Your task to perform on an android device: Add logitech g pro to the cart on costco, then select checkout. Image 0: 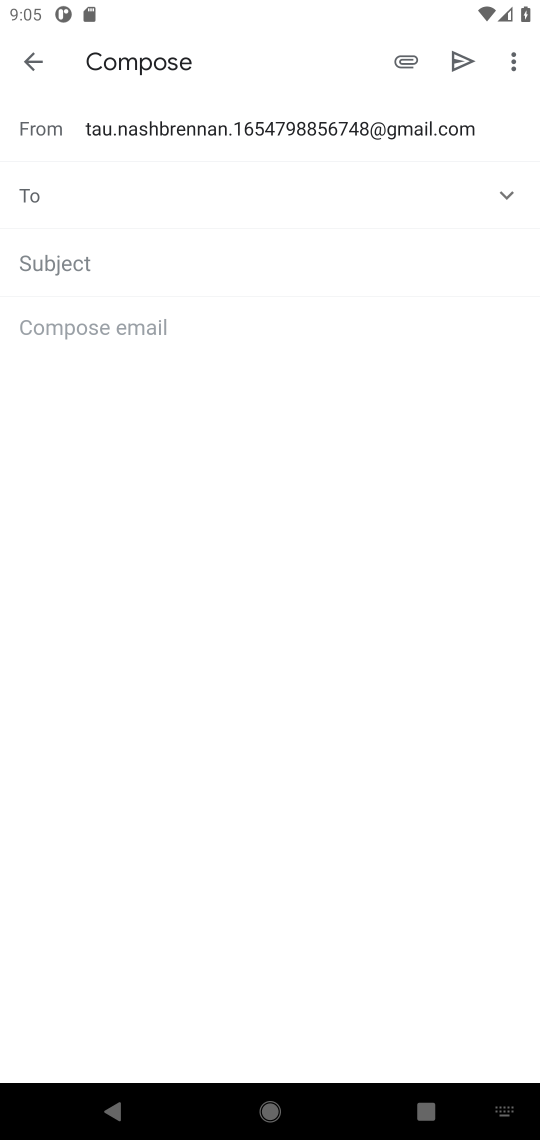
Step 0: press home button
Your task to perform on an android device: Add logitech g pro to the cart on costco, then select checkout. Image 1: 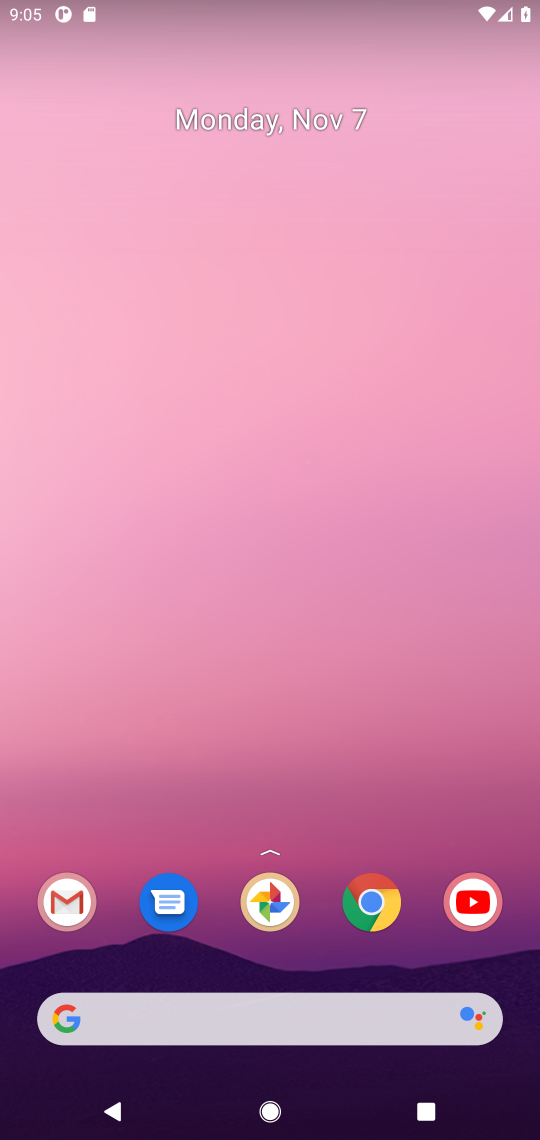
Step 1: click (377, 904)
Your task to perform on an android device: Add logitech g pro to the cart on costco, then select checkout. Image 2: 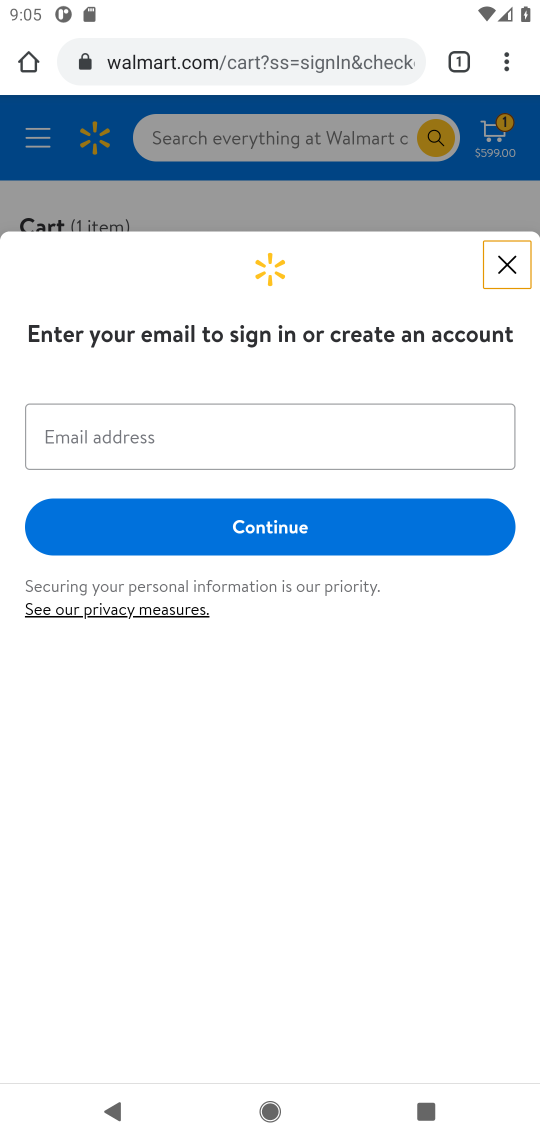
Step 2: click (243, 65)
Your task to perform on an android device: Add logitech g pro to the cart on costco, then select checkout. Image 3: 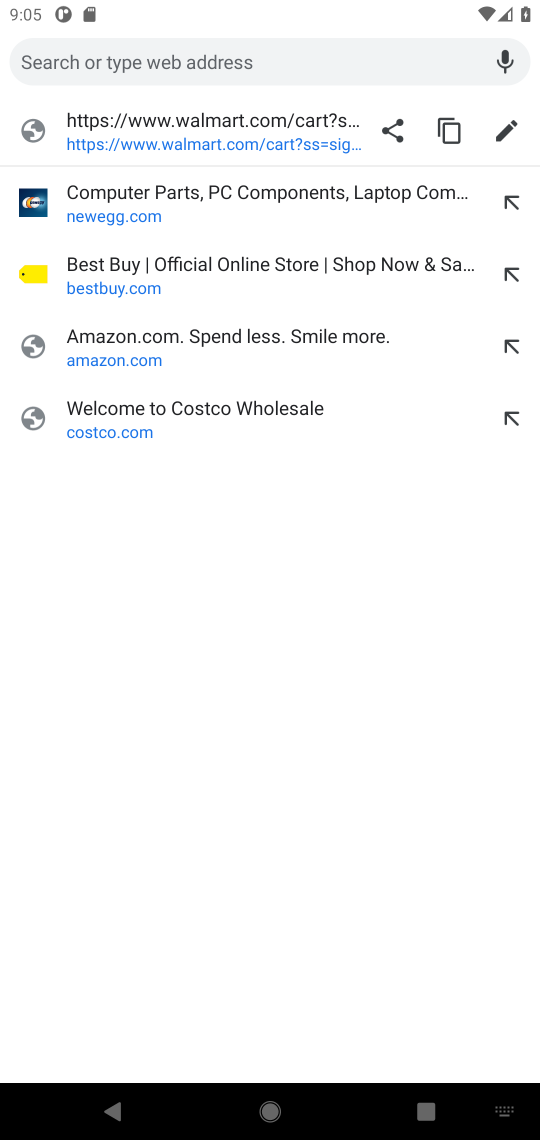
Step 3: click (133, 428)
Your task to perform on an android device: Add logitech g pro to the cart on costco, then select checkout. Image 4: 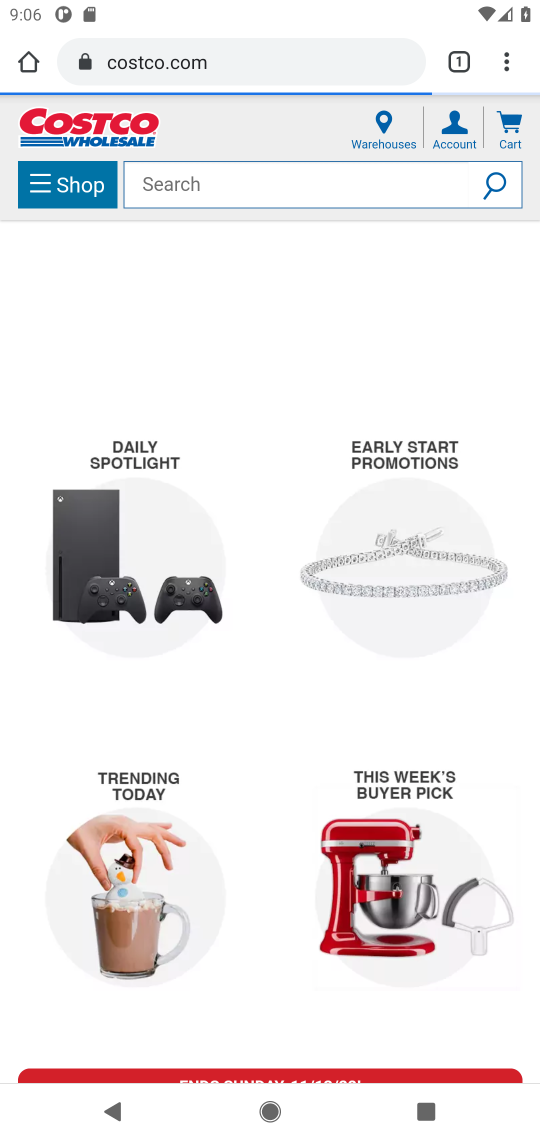
Step 4: click (235, 168)
Your task to perform on an android device: Add logitech g pro to the cart on costco, then select checkout. Image 5: 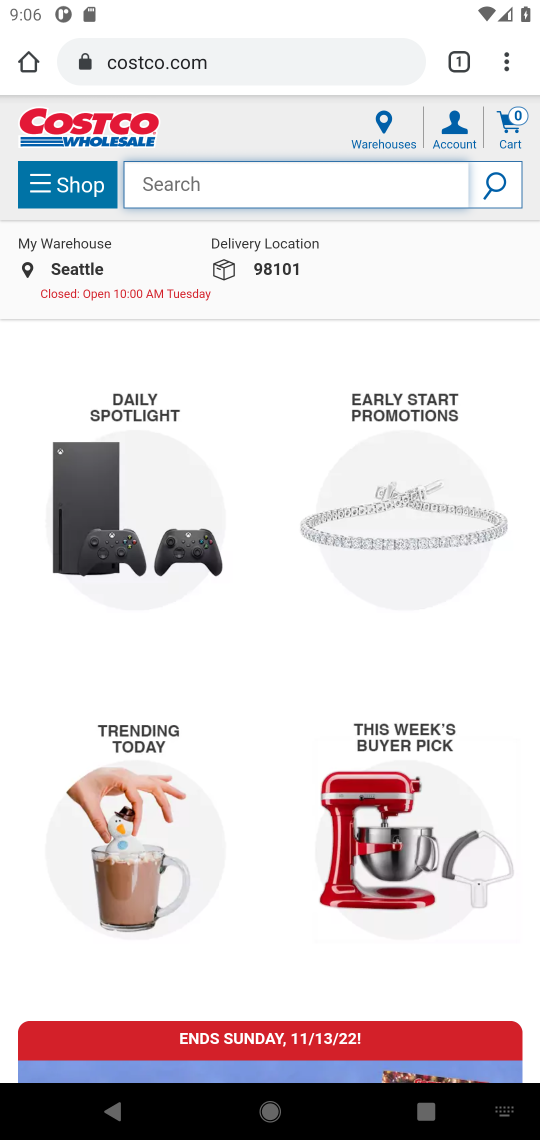
Step 5: click (202, 167)
Your task to perform on an android device: Add logitech g pro to the cart on costco, then select checkout. Image 6: 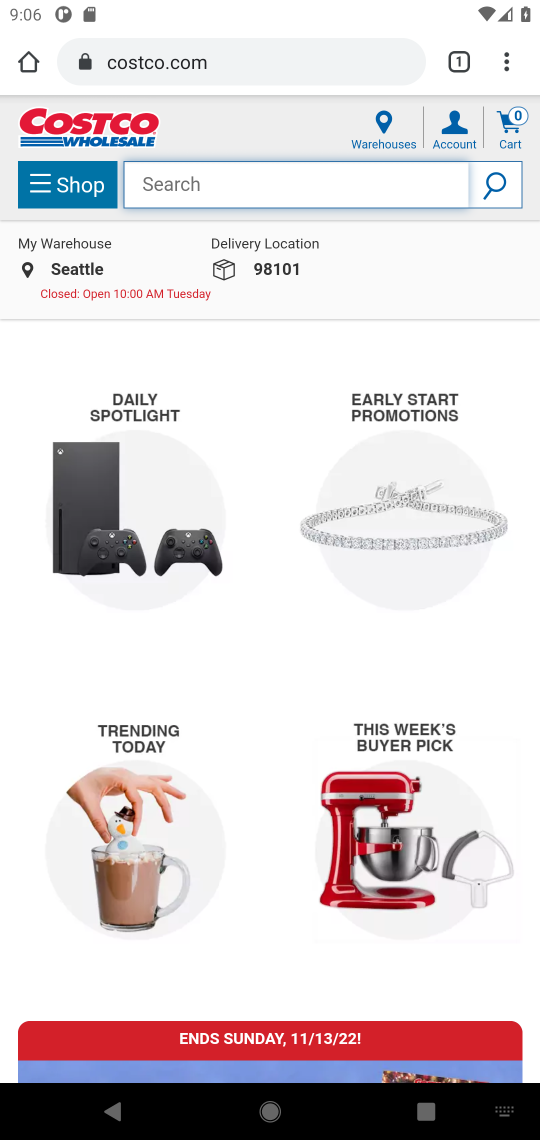
Step 6: type "logitech g pro"
Your task to perform on an android device: Add logitech g pro to the cart on costco, then select checkout. Image 7: 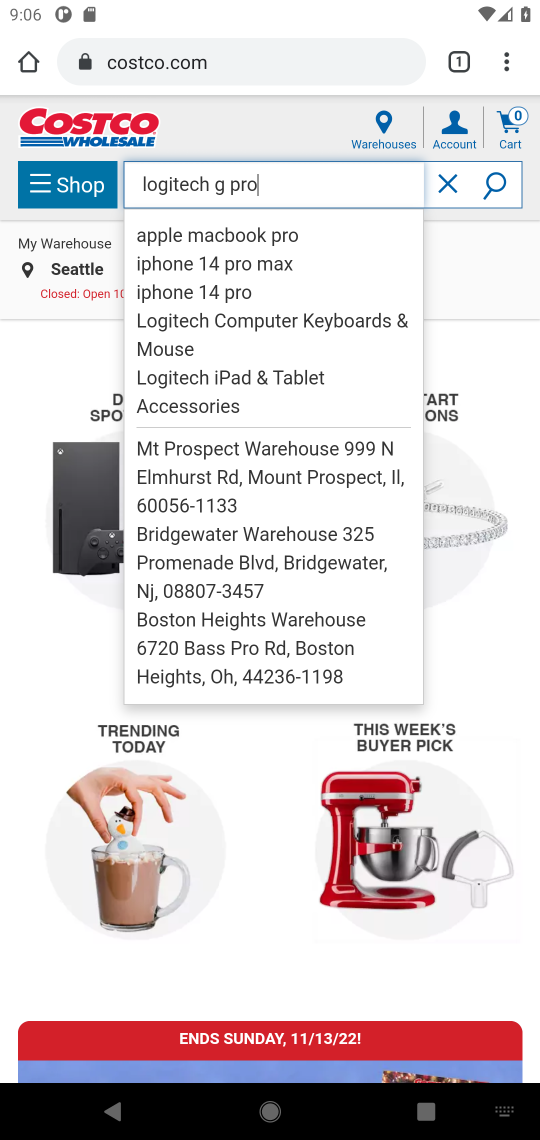
Step 7: click (502, 177)
Your task to perform on an android device: Add logitech g pro to the cart on costco, then select checkout. Image 8: 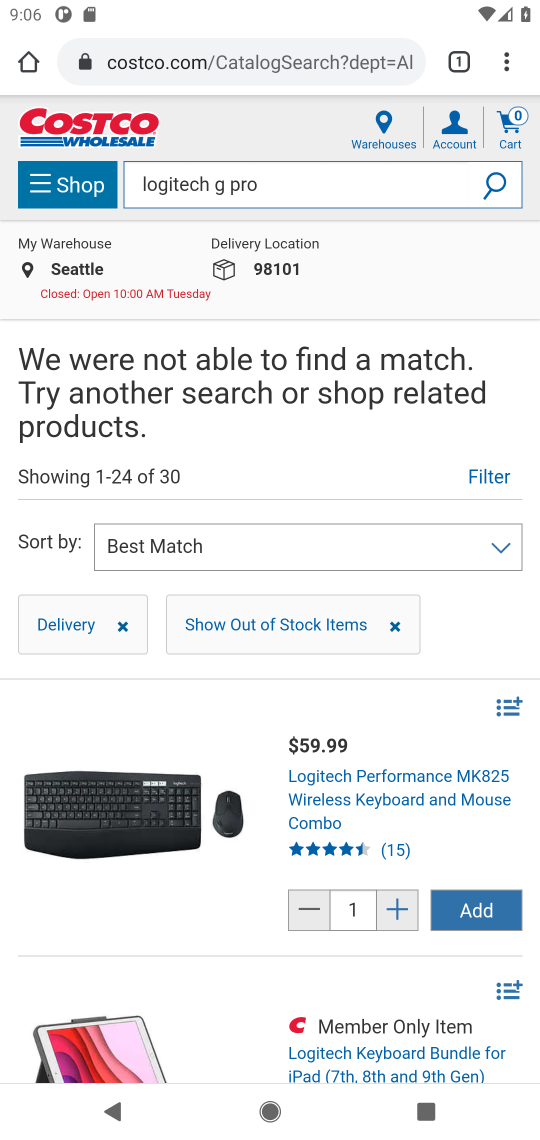
Step 8: task complete